Your task to perform on an android device: check out phone information Image 0: 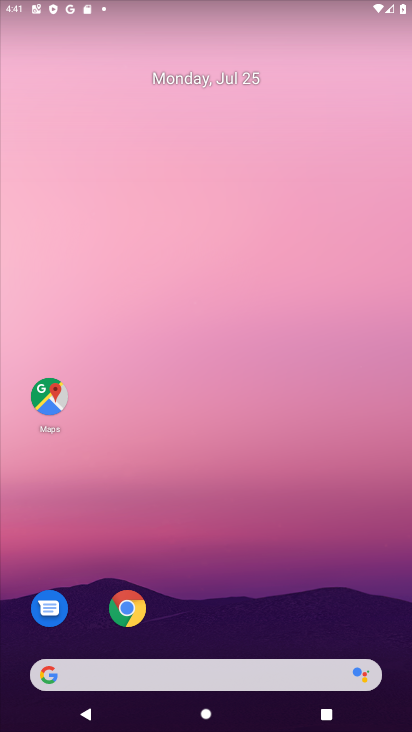
Step 0: drag from (222, 629) to (282, 77)
Your task to perform on an android device: check out phone information Image 1: 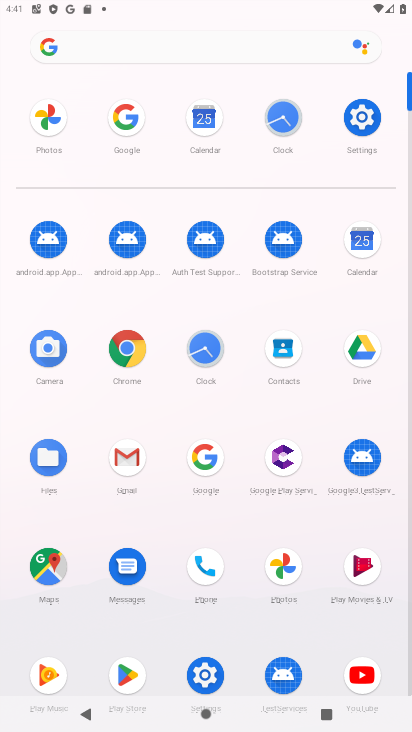
Step 1: click (360, 112)
Your task to perform on an android device: check out phone information Image 2: 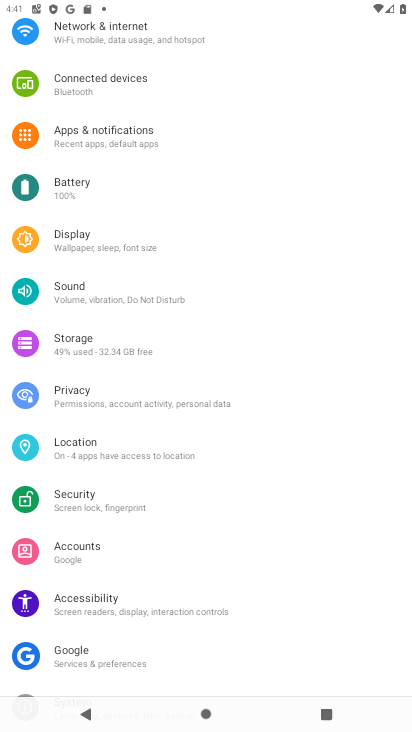
Step 2: drag from (165, 623) to (242, 189)
Your task to perform on an android device: check out phone information Image 3: 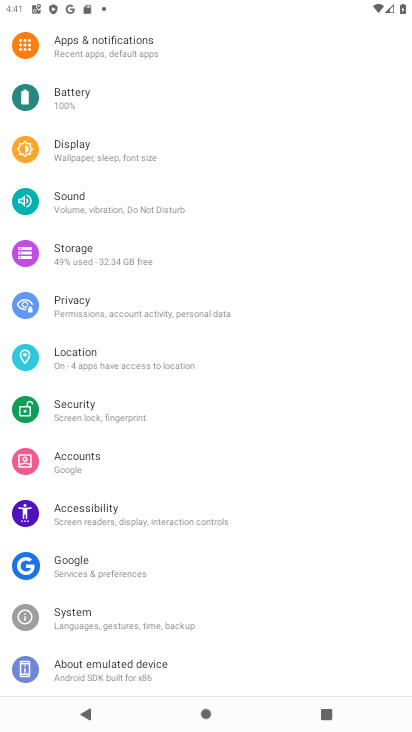
Step 3: click (153, 674)
Your task to perform on an android device: check out phone information Image 4: 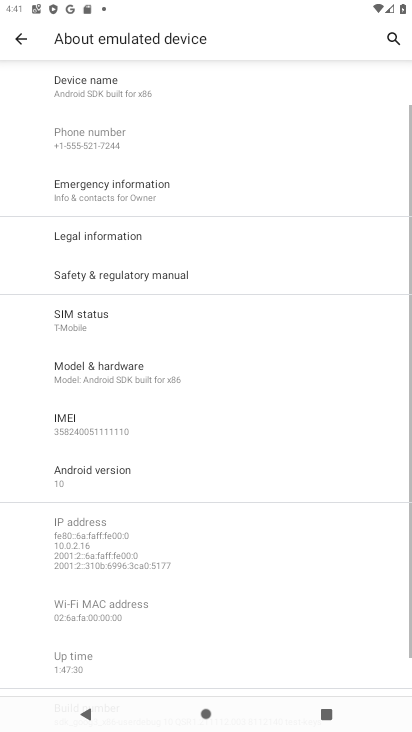
Step 4: task complete